Your task to perform on an android device: Show me the alarms in the clock app Image 0: 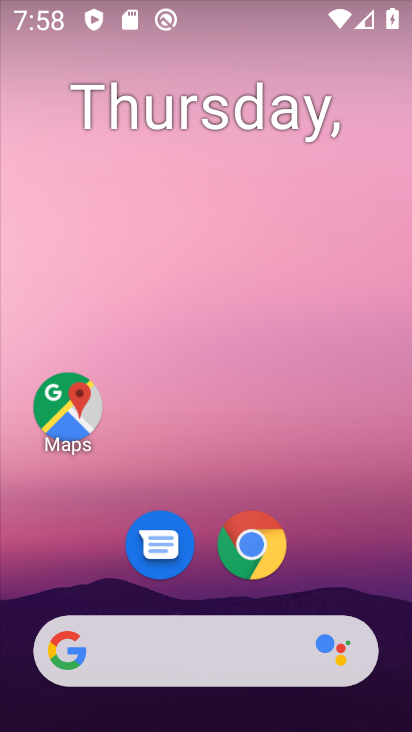
Step 0: drag from (286, 461) to (293, 303)
Your task to perform on an android device: Show me the alarms in the clock app Image 1: 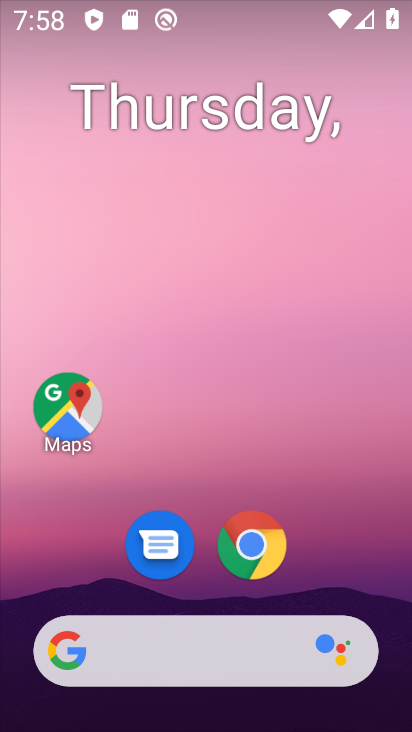
Step 1: drag from (272, 425) to (283, 283)
Your task to perform on an android device: Show me the alarms in the clock app Image 2: 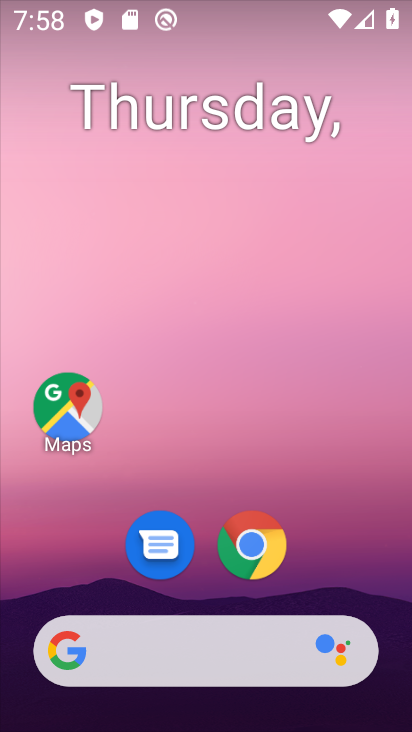
Step 2: drag from (208, 627) to (302, 134)
Your task to perform on an android device: Show me the alarms in the clock app Image 3: 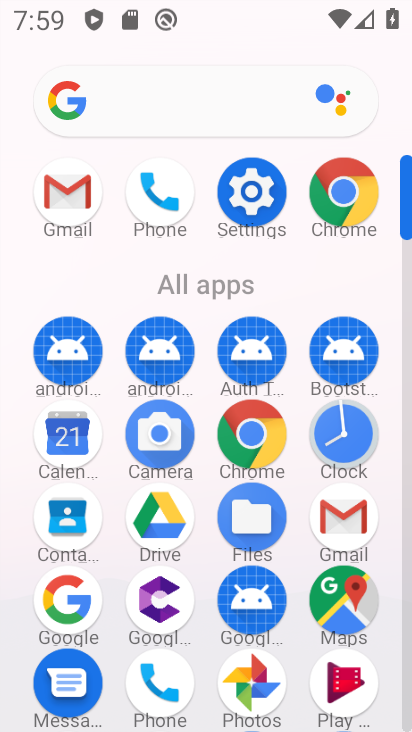
Step 3: click (339, 428)
Your task to perform on an android device: Show me the alarms in the clock app Image 4: 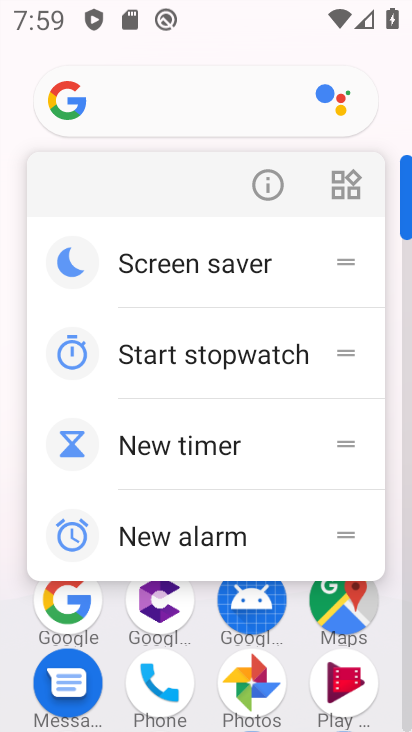
Step 4: press back button
Your task to perform on an android device: Show me the alarms in the clock app Image 5: 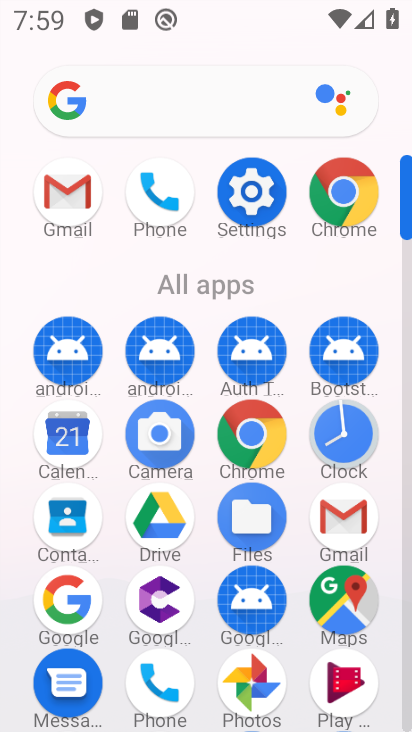
Step 5: click (337, 426)
Your task to perform on an android device: Show me the alarms in the clock app Image 6: 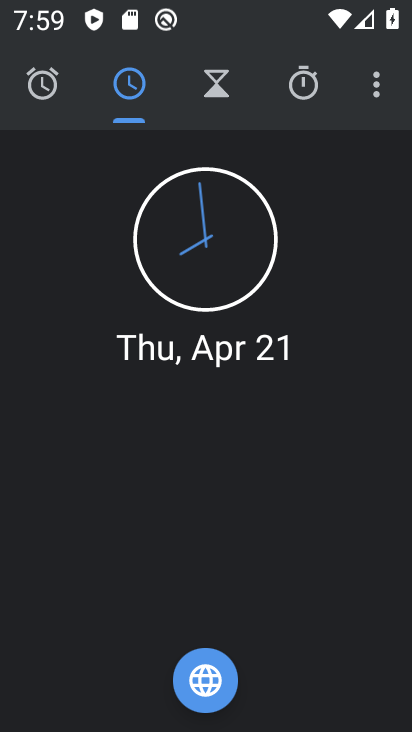
Step 6: click (64, 64)
Your task to perform on an android device: Show me the alarms in the clock app Image 7: 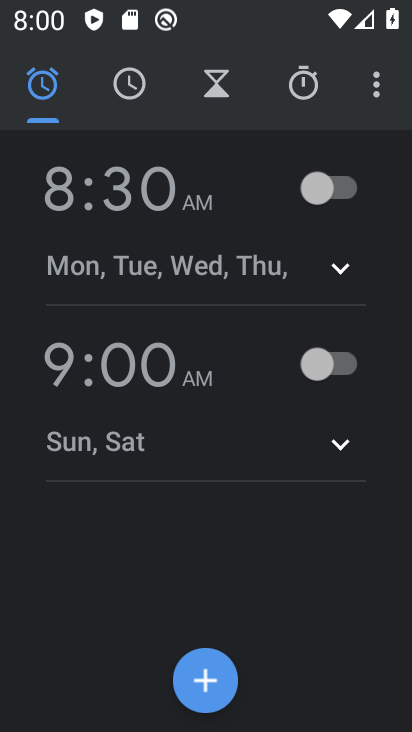
Step 7: task complete